Your task to perform on an android device: turn notification dots on Image 0: 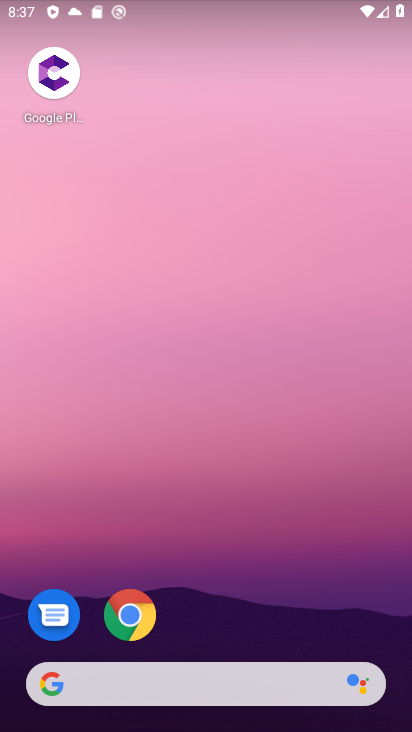
Step 0: drag from (277, 623) to (238, 283)
Your task to perform on an android device: turn notification dots on Image 1: 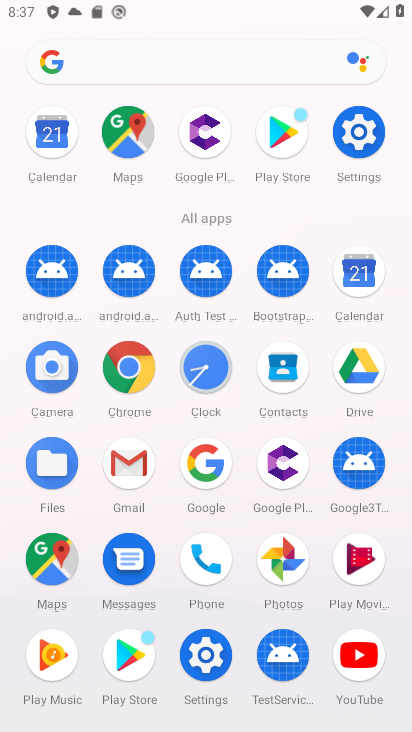
Step 1: click (207, 661)
Your task to perform on an android device: turn notification dots on Image 2: 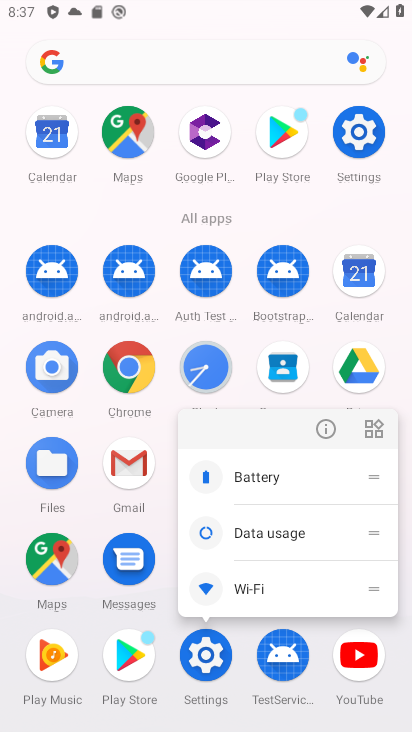
Step 2: click (208, 639)
Your task to perform on an android device: turn notification dots on Image 3: 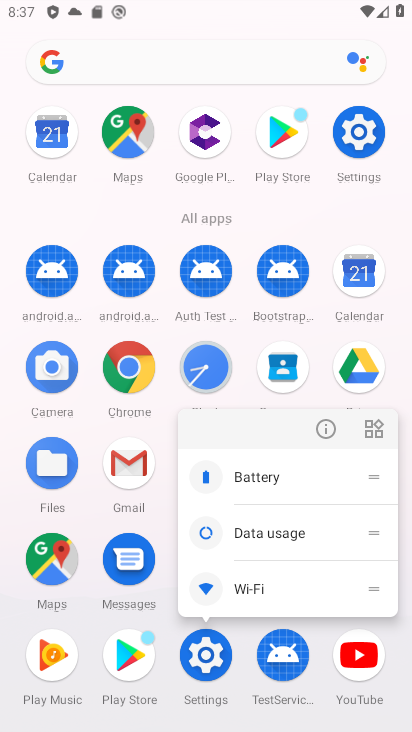
Step 3: click (201, 660)
Your task to perform on an android device: turn notification dots on Image 4: 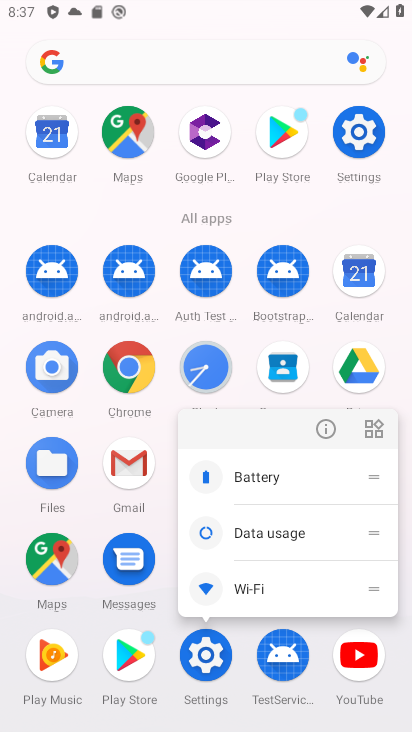
Step 4: click (192, 660)
Your task to perform on an android device: turn notification dots on Image 5: 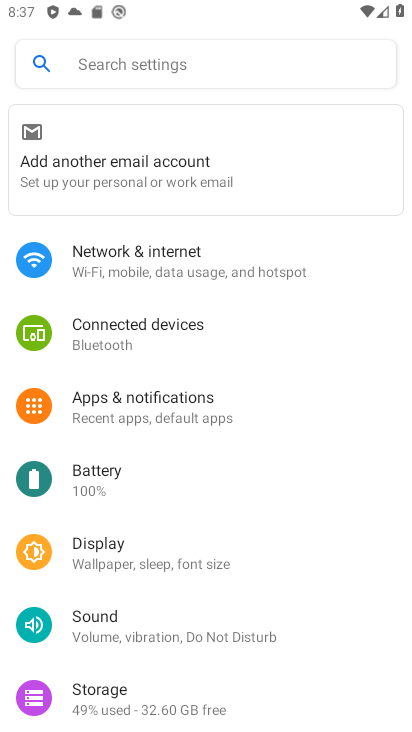
Step 5: click (103, 415)
Your task to perform on an android device: turn notification dots on Image 6: 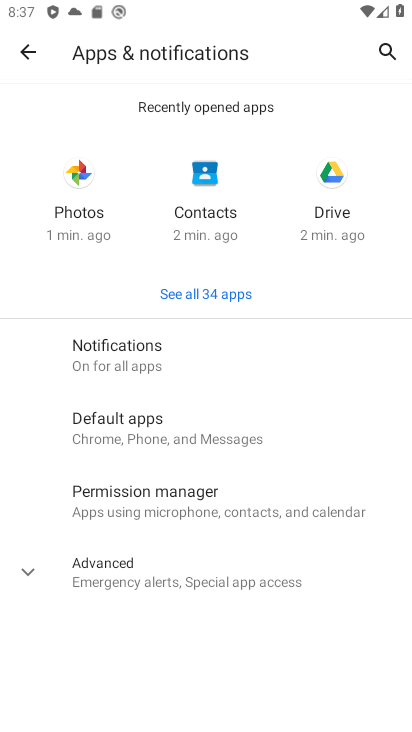
Step 6: click (123, 368)
Your task to perform on an android device: turn notification dots on Image 7: 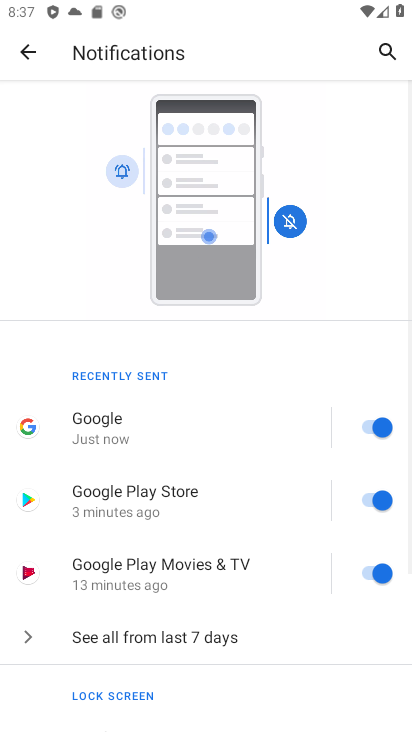
Step 7: drag from (161, 620) to (201, 158)
Your task to perform on an android device: turn notification dots on Image 8: 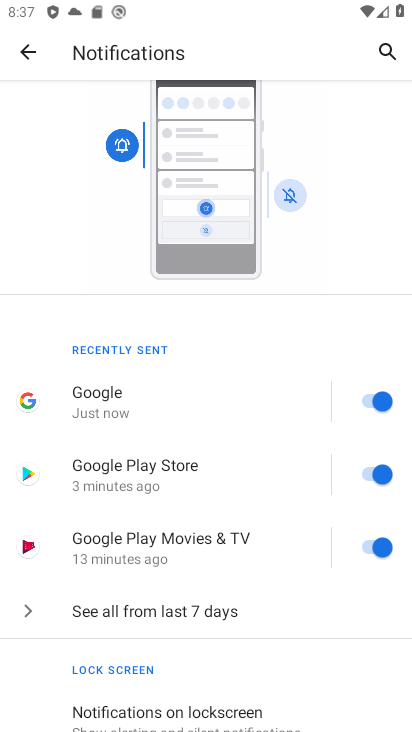
Step 8: drag from (187, 678) to (278, 238)
Your task to perform on an android device: turn notification dots on Image 9: 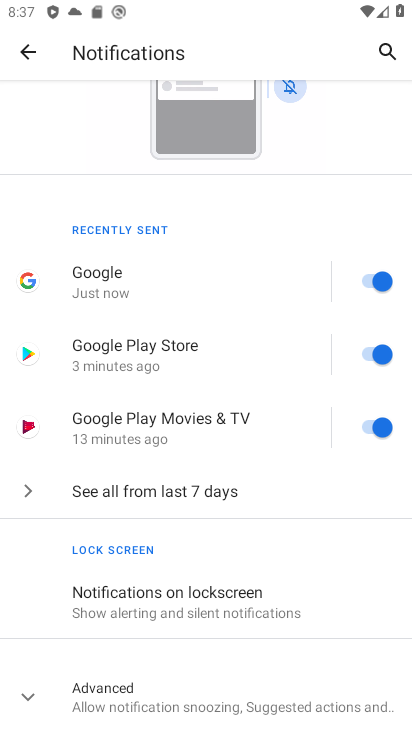
Step 9: click (122, 688)
Your task to perform on an android device: turn notification dots on Image 10: 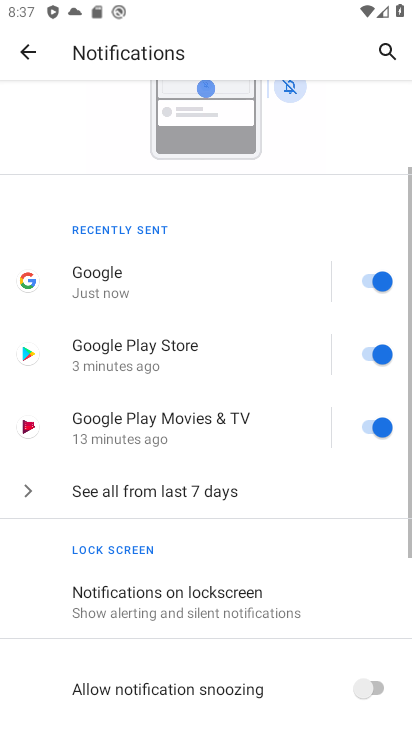
Step 10: task complete